Your task to perform on an android device: Open my contact list Image 0: 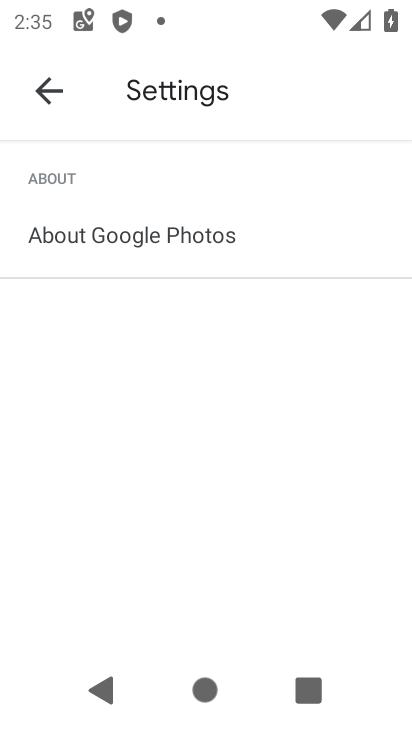
Step 0: press home button
Your task to perform on an android device: Open my contact list Image 1: 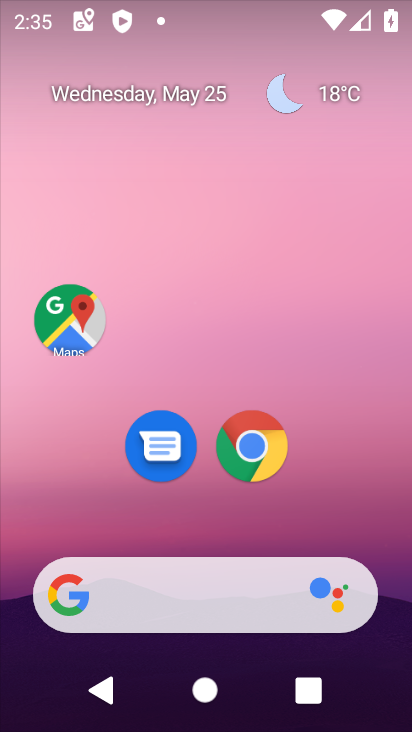
Step 1: drag from (170, 593) to (172, 145)
Your task to perform on an android device: Open my contact list Image 2: 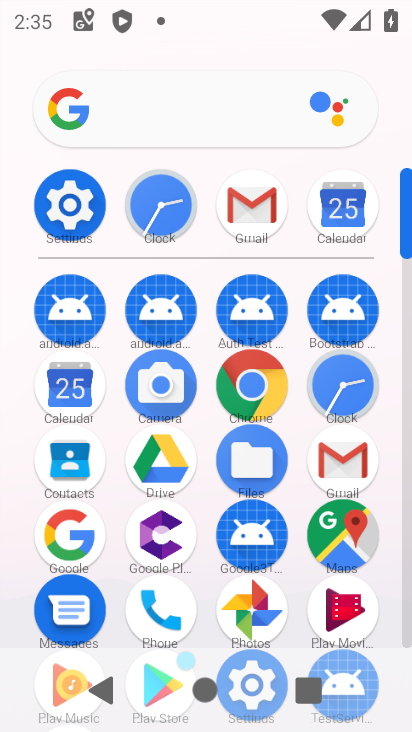
Step 2: click (59, 471)
Your task to perform on an android device: Open my contact list Image 3: 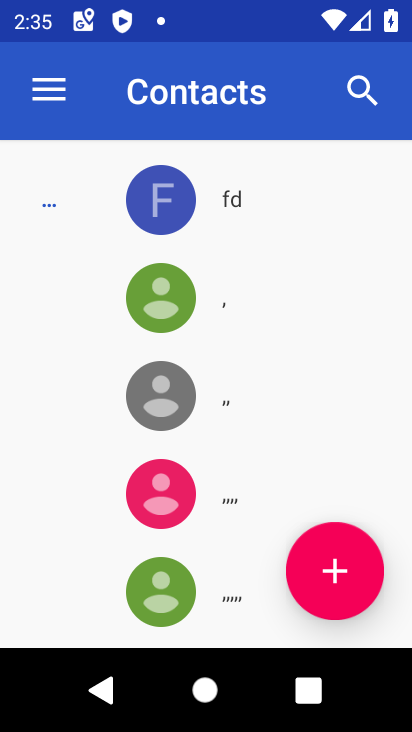
Step 3: task complete